Your task to perform on an android device: Go to Yahoo.com Image 0: 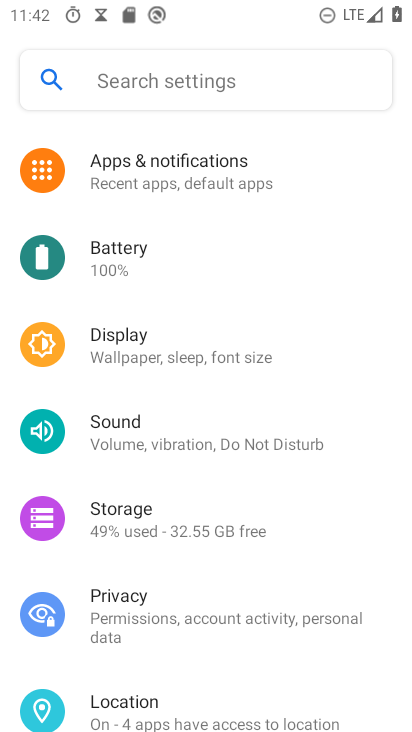
Step 0: press home button
Your task to perform on an android device: Go to Yahoo.com Image 1: 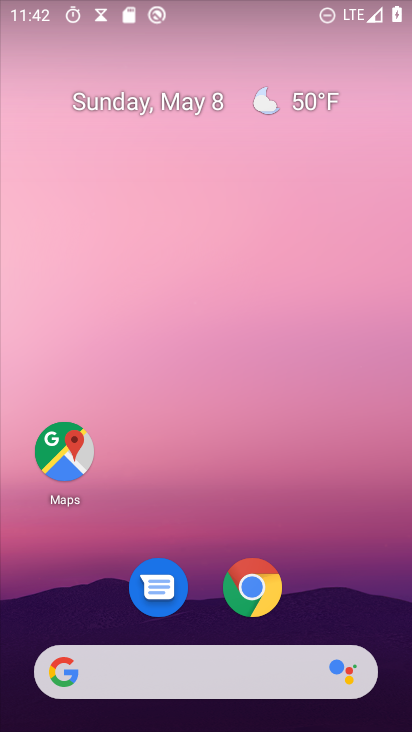
Step 1: click (245, 592)
Your task to perform on an android device: Go to Yahoo.com Image 2: 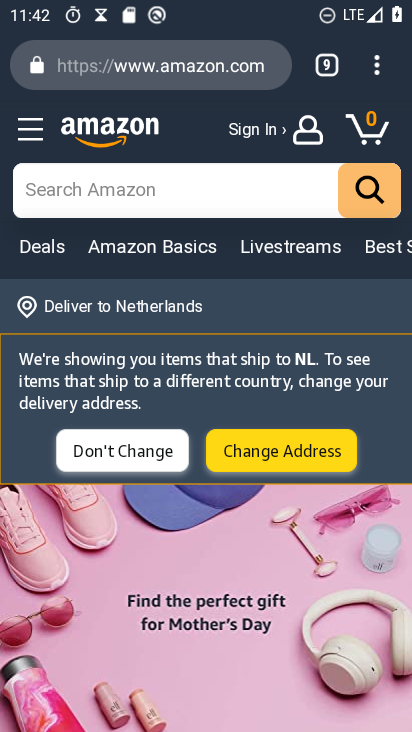
Step 2: click (321, 61)
Your task to perform on an android device: Go to Yahoo.com Image 3: 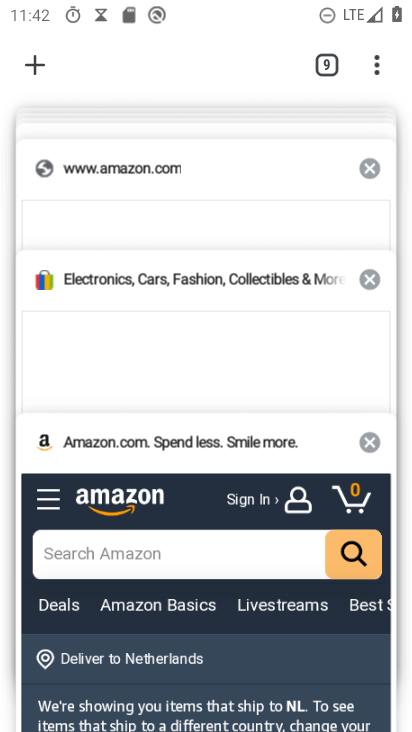
Step 3: drag from (203, 165) to (215, 593)
Your task to perform on an android device: Go to Yahoo.com Image 4: 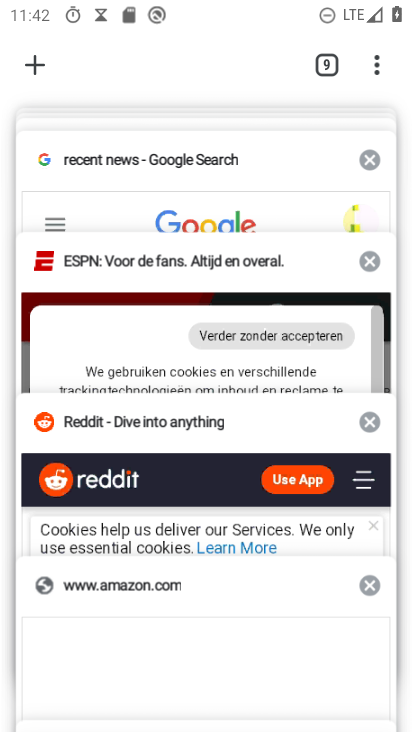
Step 4: drag from (174, 232) to (161, 595)
Your task to perform on an android device: Go to Yahoo.com Image 5: 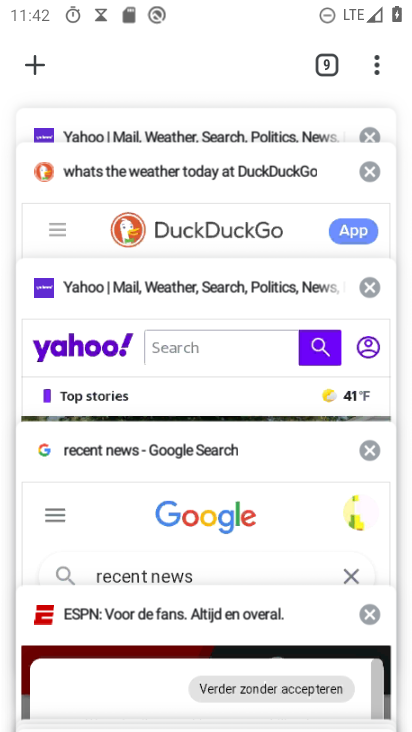
Step 5: click (145, 331)
Your task to perform on an android device: Go to Yahoo.com Image 6: 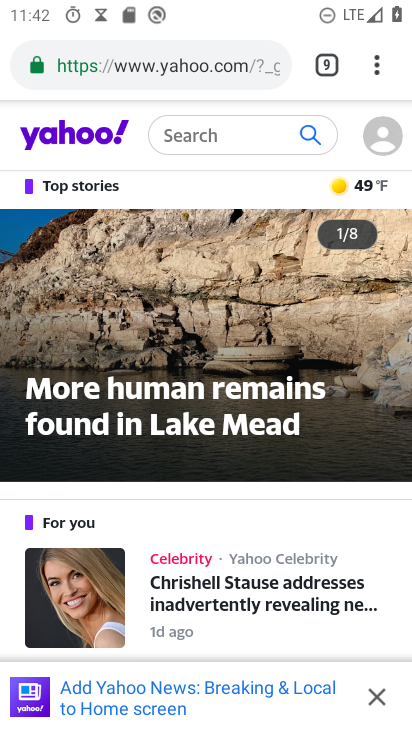
Step 6: task complete